Your task to perform on an android device: Go to Reddit.com Image 0: 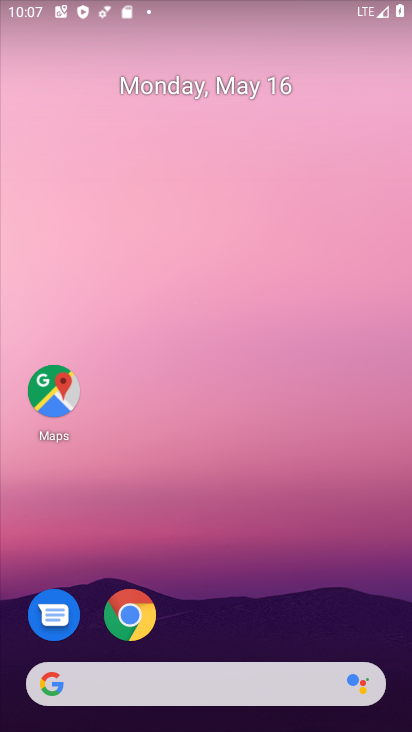
Step 0: drag from (245, 648) to (322, 128)
Your task to perform on an android device: Go to Reddit.com Image 1: 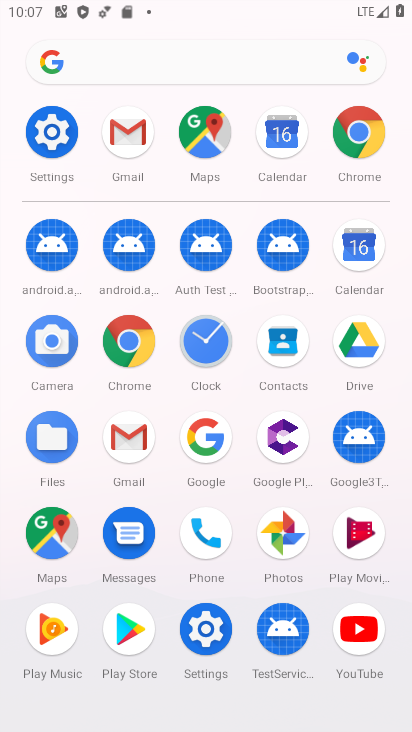
Step 1: click (364, 140)
Your task to perform on an android device: Go to Reddit.com Image 2: 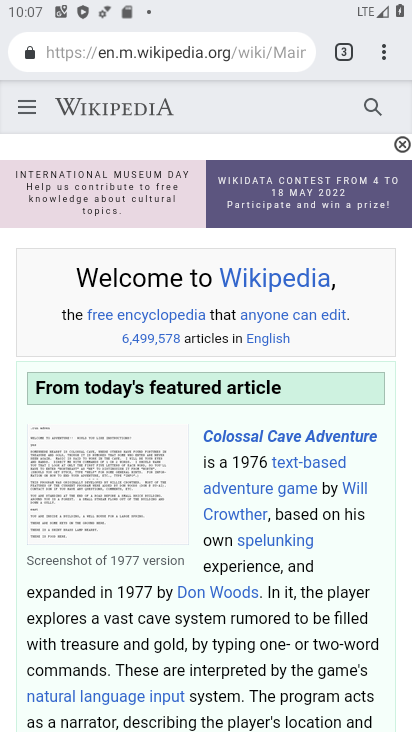
Step 2: click (238, 57)
Your task to perform on an android device: Go to Reddit.com Image 3: 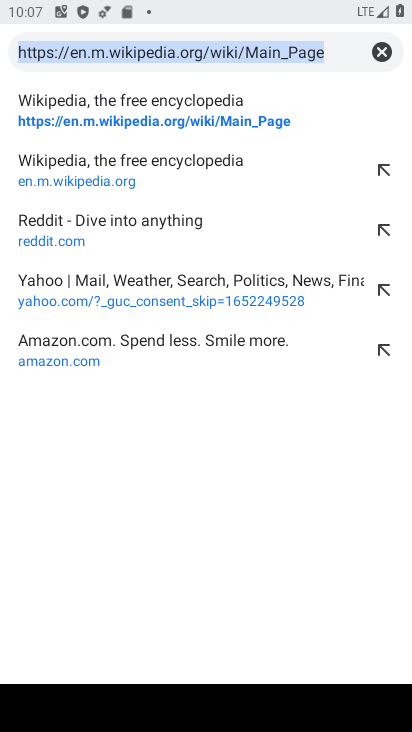
Step 3: click (132, 233)
Your task to perform on an android device: Go to Reddit.com Image 4: 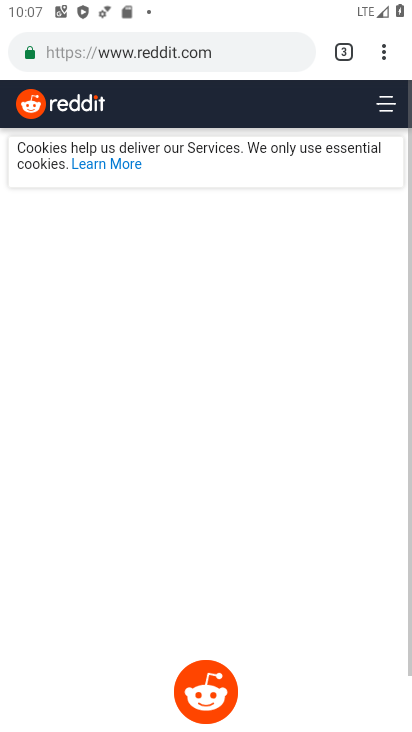
Step 4: task complete